Your task to perform on an android device: Open Chrome and go to the settings page Image 0: 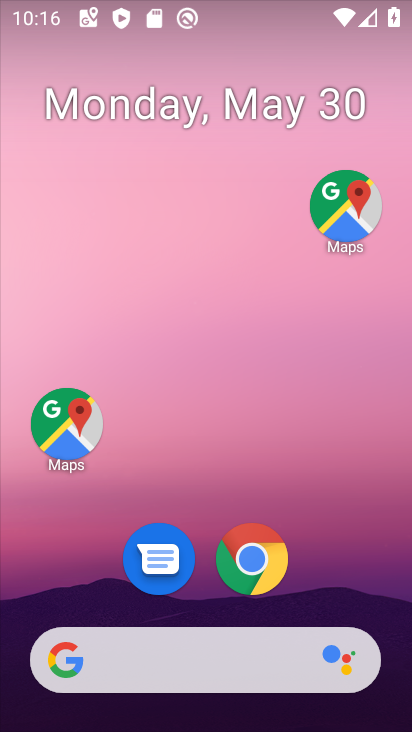
Step 0: click (248, 559)
Your task to perform on an android device: Open Chrome and go to the settings page Image 1: 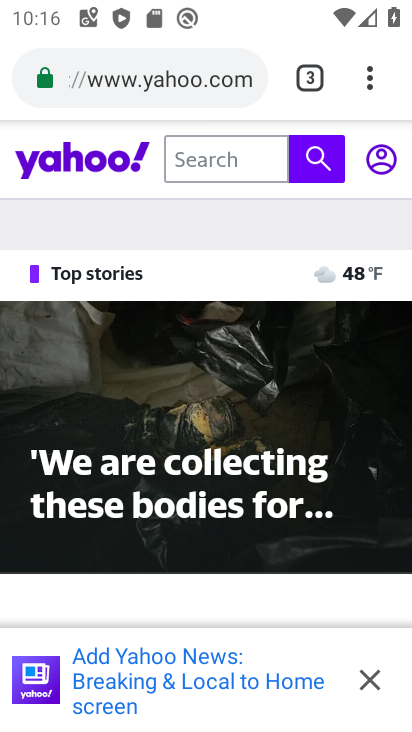
Step 1: task complete